Your task to perform on an android device: install app "Firefox Browser" Image 0: 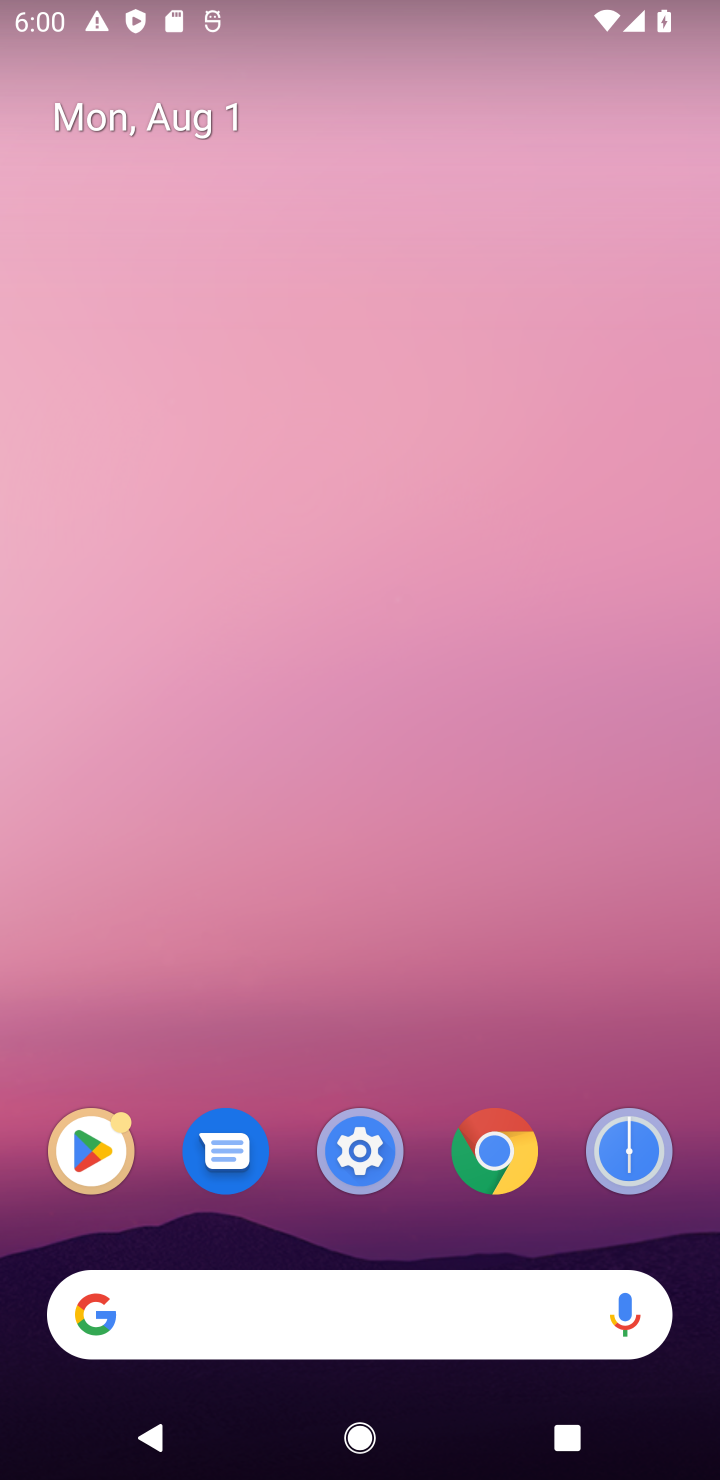
Step 0: drag from (293, 1296) to (450, 69)
Your task to perform on an android device: install app "Firefox Browser" Image 1: 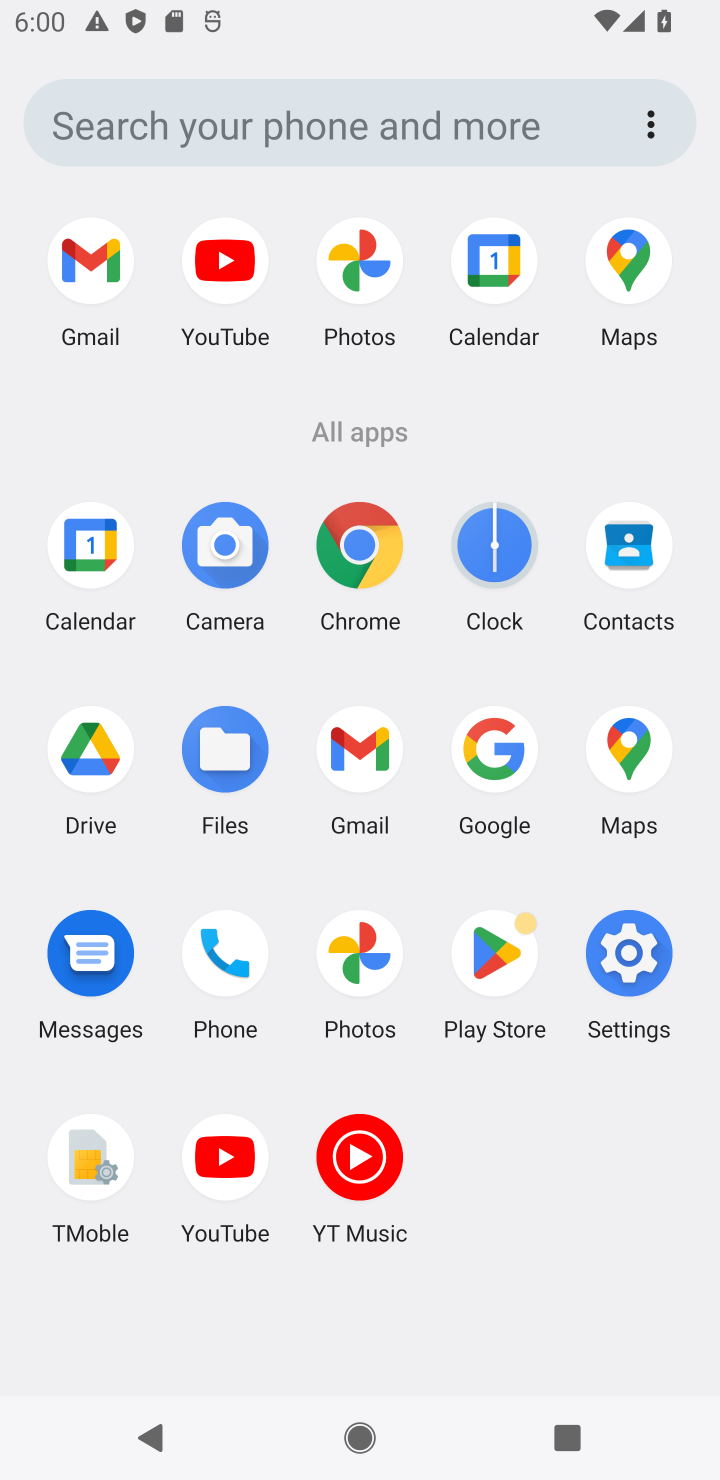
Step 1: click (501, 973)
Your task to perform on an android device: install app "Firefox Browser" Image 2: 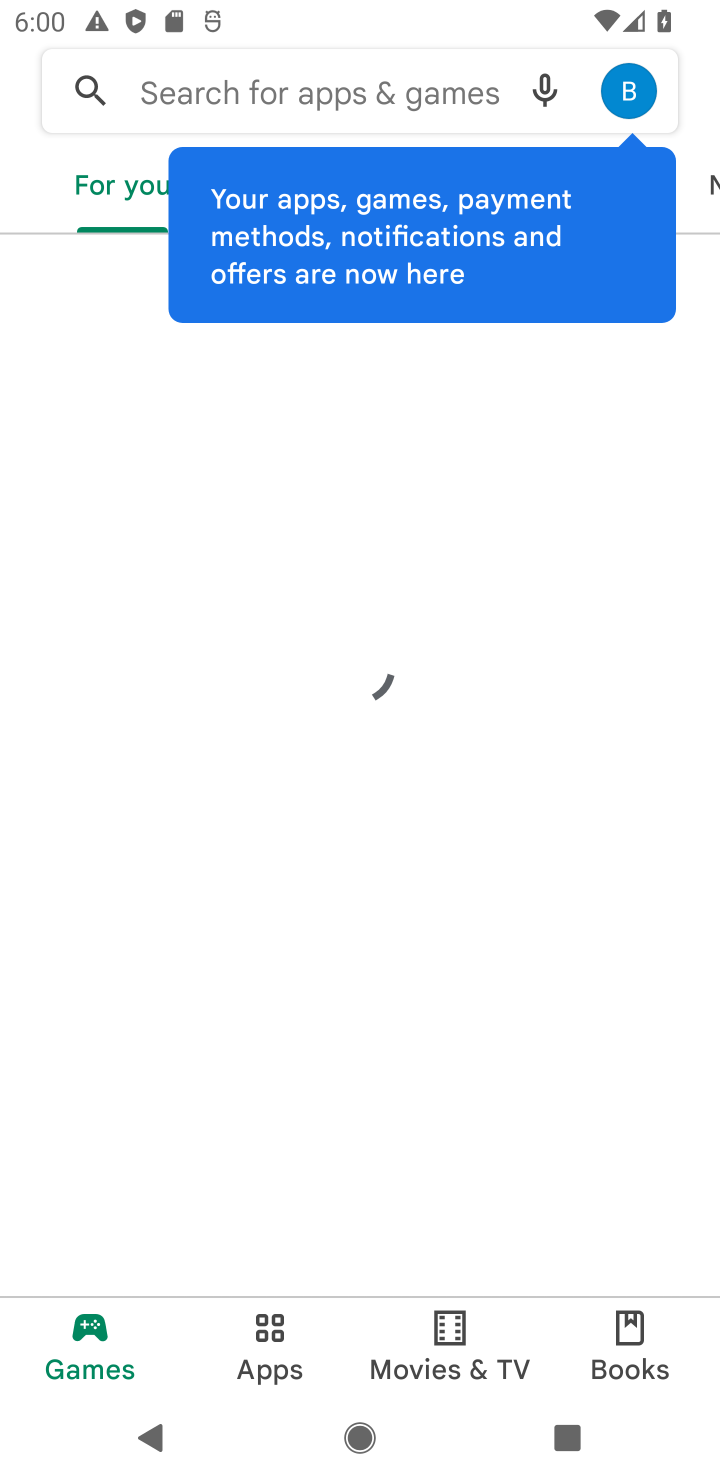
Step 2: click (434, 74)
Your task to perform on an android device: install app "Firefox Browser" Image 3: 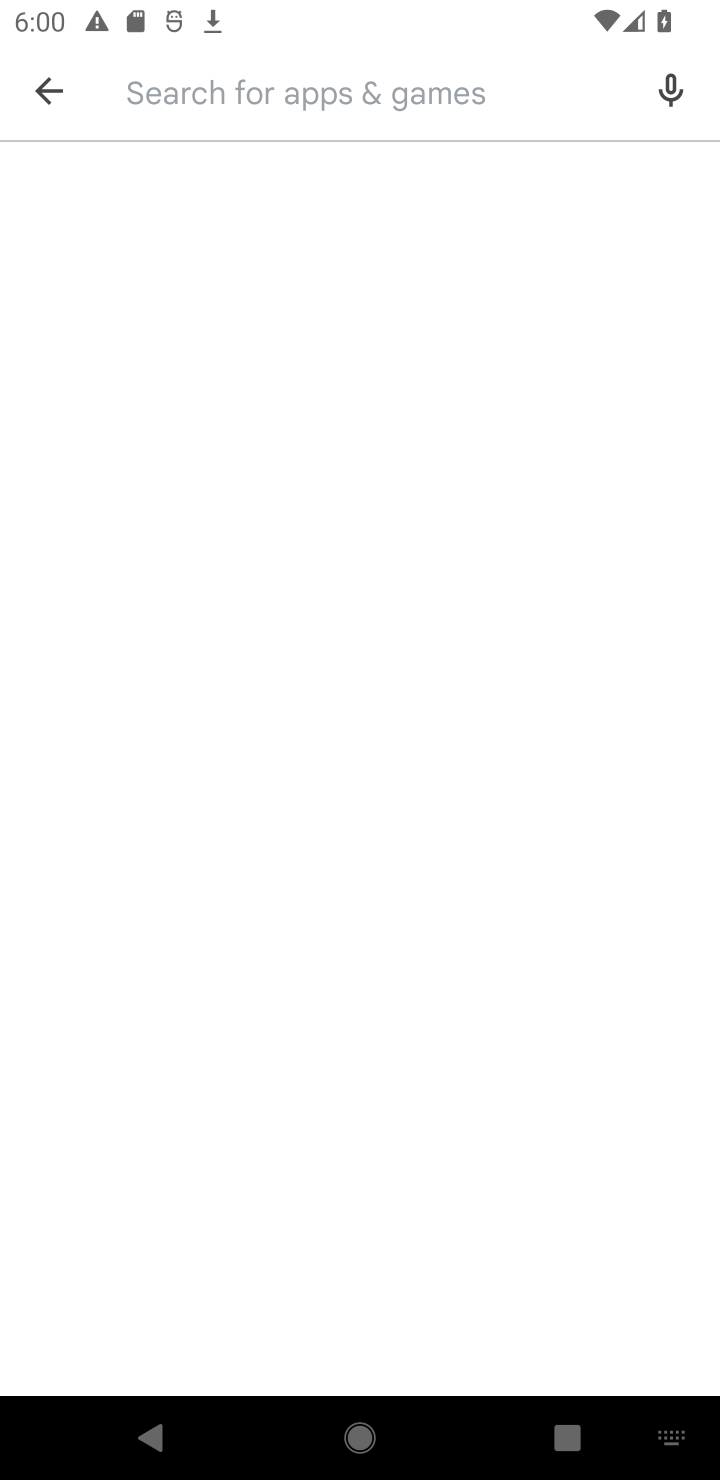
Step 3: type "firefox browser"
Your task to perform on an android device: install app "Firefox Browser" Image 4: 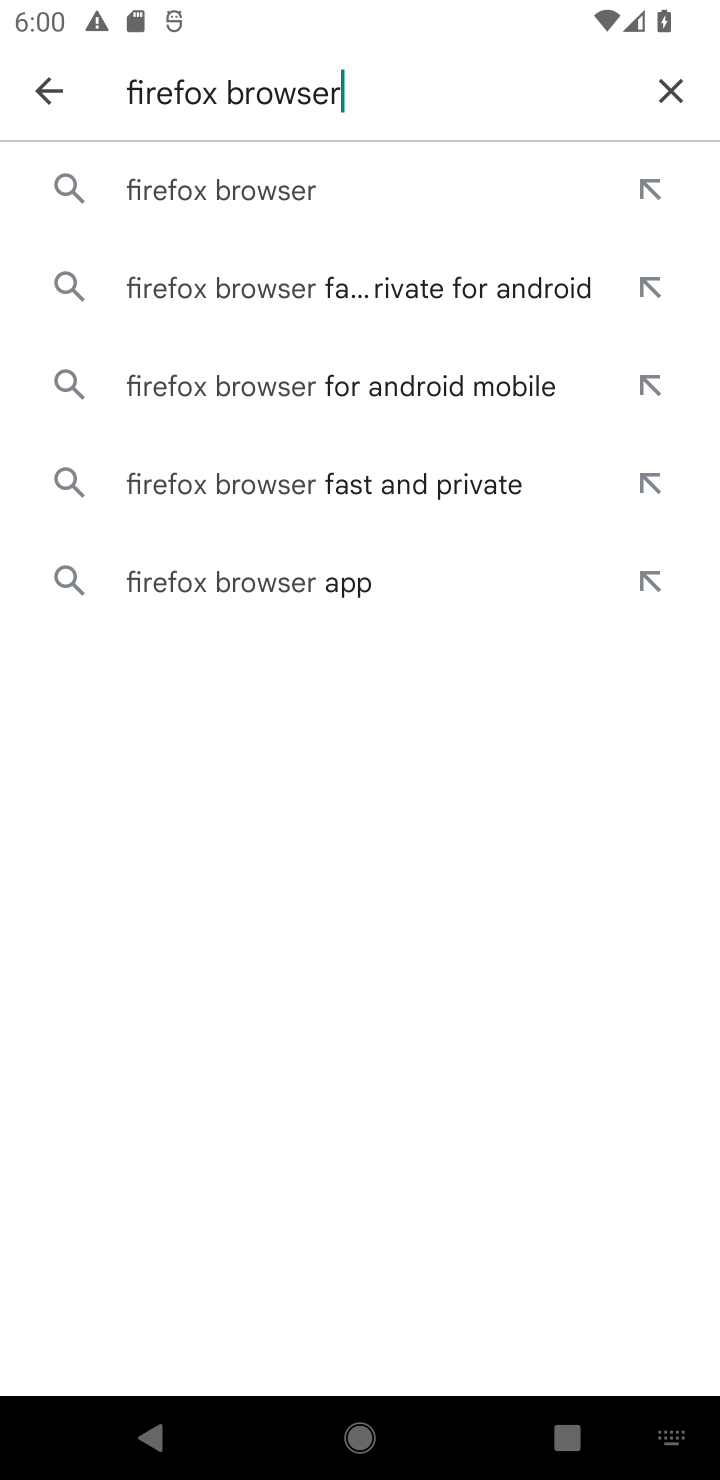
Step 4: click (289, 201)
Your task to perform on an android device: install app "Firefox Browser" Image 5: 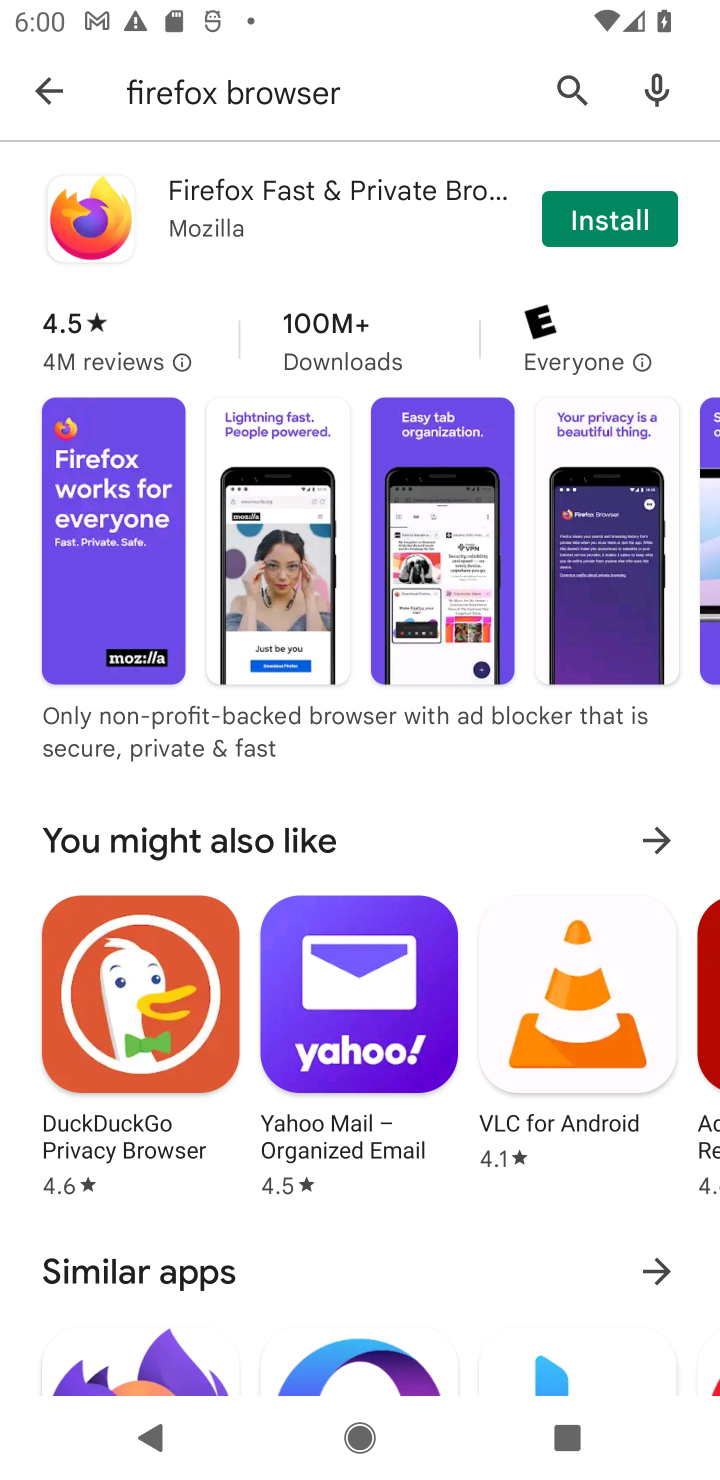
Step 5: click (636, 224)
Your task to perform on an android device: install app "Firefox Browser" Image 6: 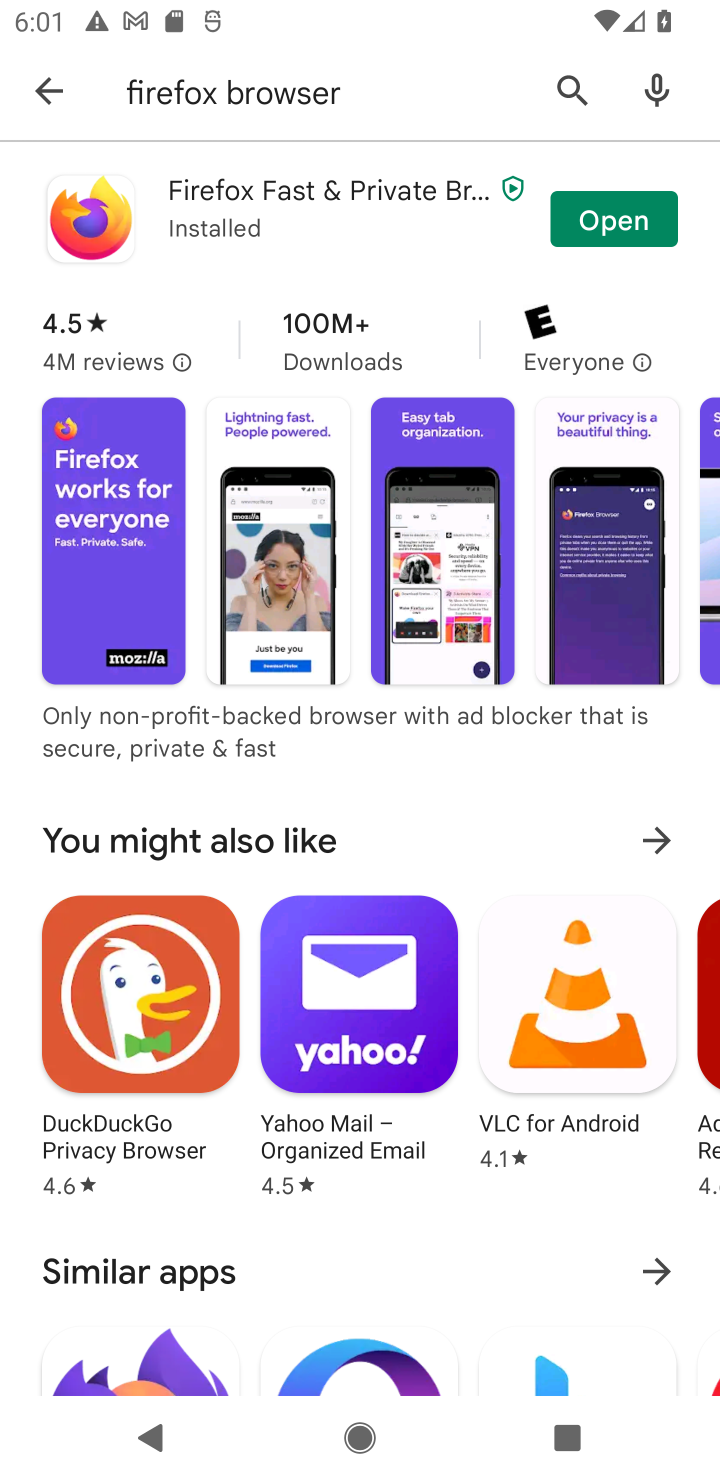
Step 6: task complete